Your task to perform on an android device: Go to Google maps Image 0: 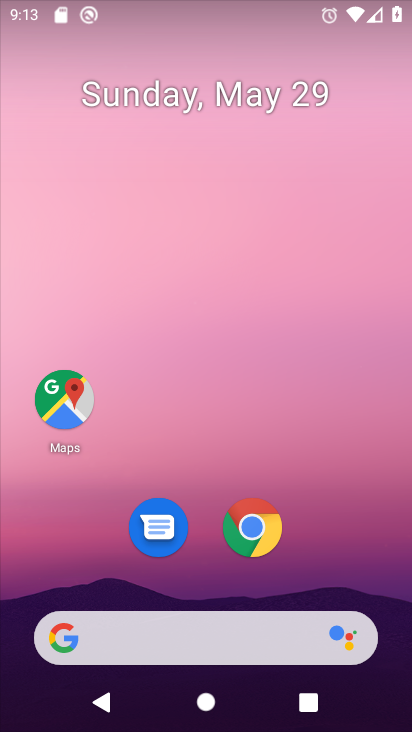
Step 0: click (66, 397)
Your task to perform on an android device: Go to Google maps Image 1: 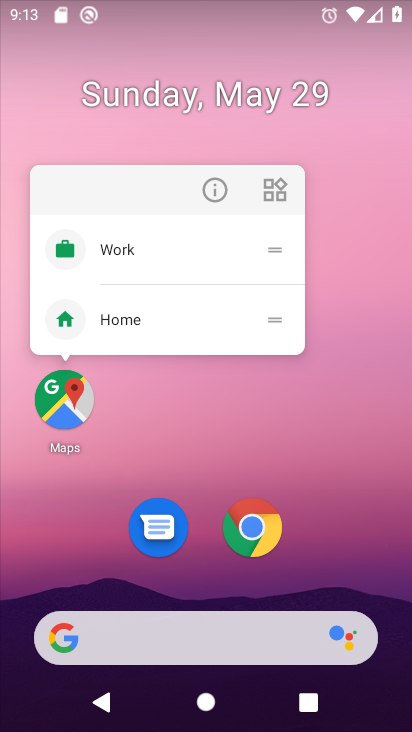
Step 1: click (61, 390)
Your task to perform on an android device: Go to Google maps Image 2: 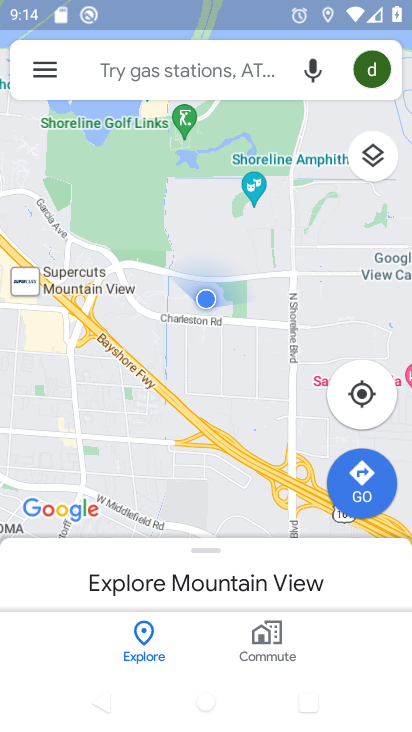
Step 2: click (367, 473)
Your task to perform on an android device: Go to Google maps Image 3: 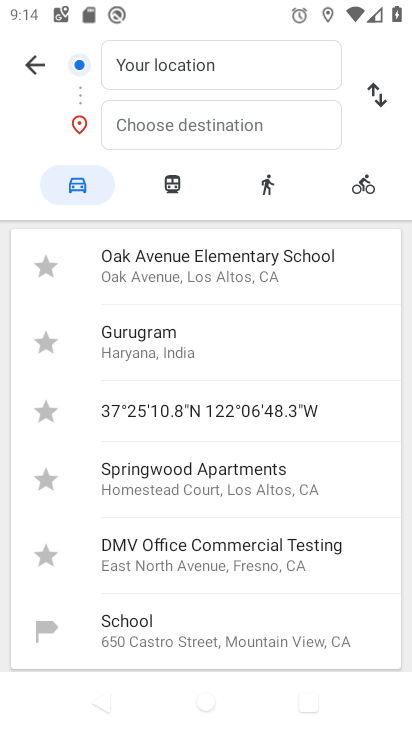
Step 3: task complete